Your task to perform on an android device: turn off data saver in the chrome app Image 0: 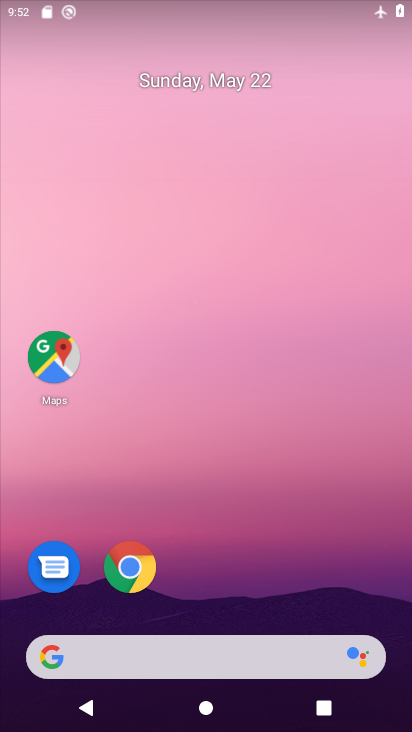
Step 0: click (127, 561)
Your task to perform on an android device: turn off data saver in the chrome app Image 1: 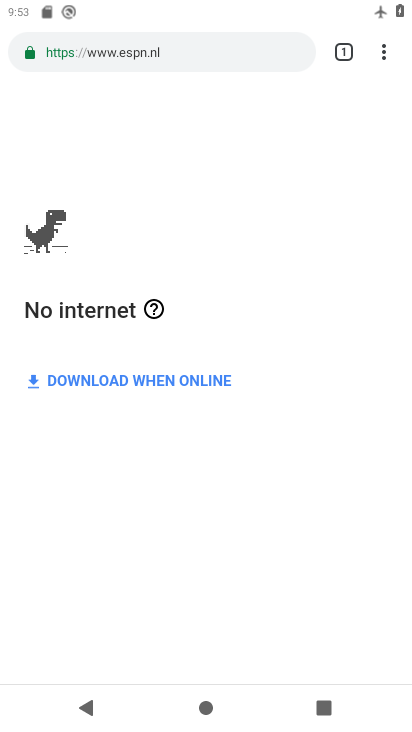
Step 1: click (387, 50)
Your task to perform on an android device: turn off data saver in the chrome app Image 2: 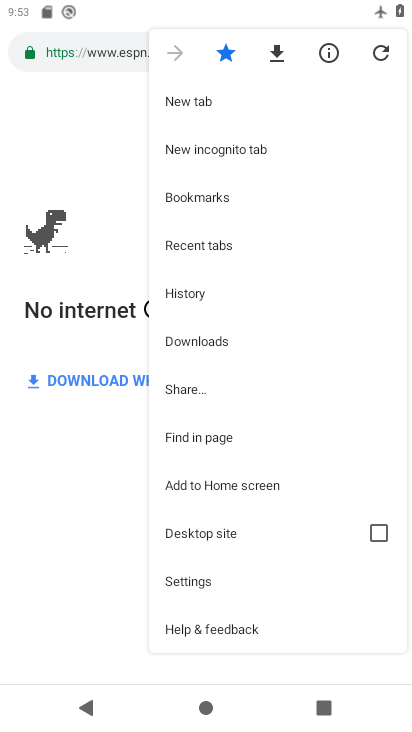
Step 2: click (217, 576)
Your task to perform on an android device: turn off data saver in the chrome app Image 3: 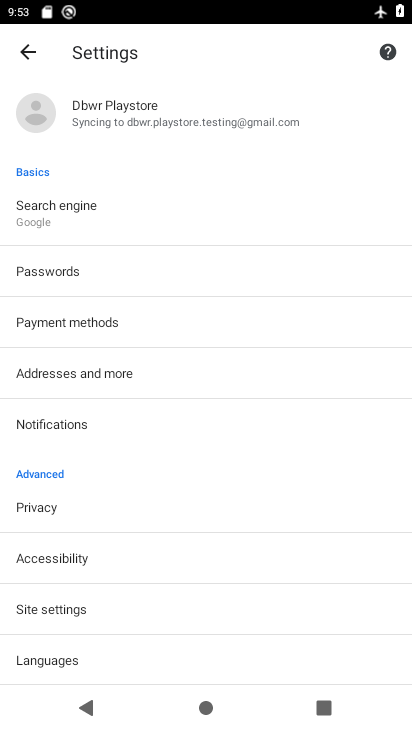
Step 3: drag from (141, 633) to (131, 180)
Your task to perform on an android device: turn off data saver in the chrome app Image 4: 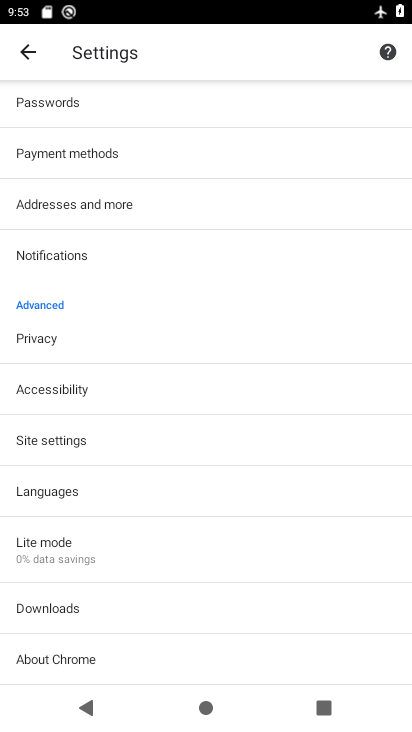
Step 4: click (106, 545)
Your task to perform on an android device: turn off data saver in the chrome app Image 5: 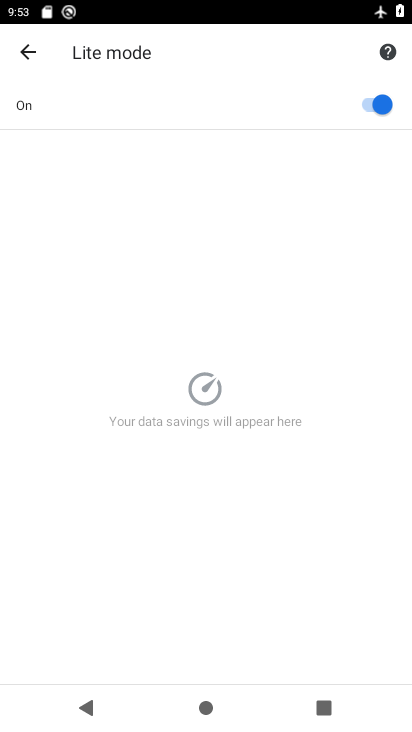
Step 5: click (367, 102)
Your task to perform on an android device: turn off data saver in the chrome app Image 6: 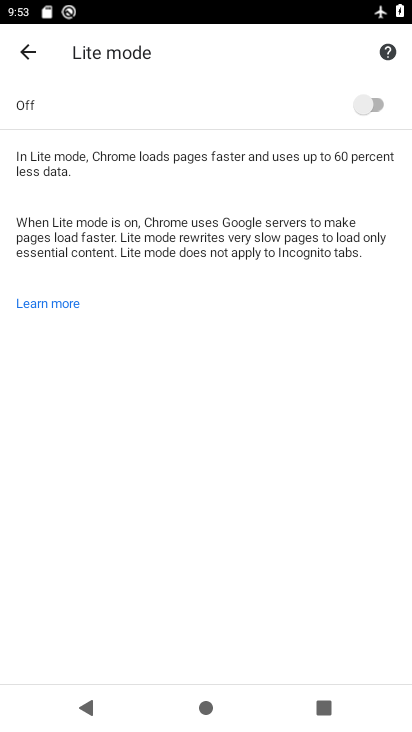
Step 6: task complete